Your task to perform on an android device: open the mobile data screen to see how much data has been used Image 0: 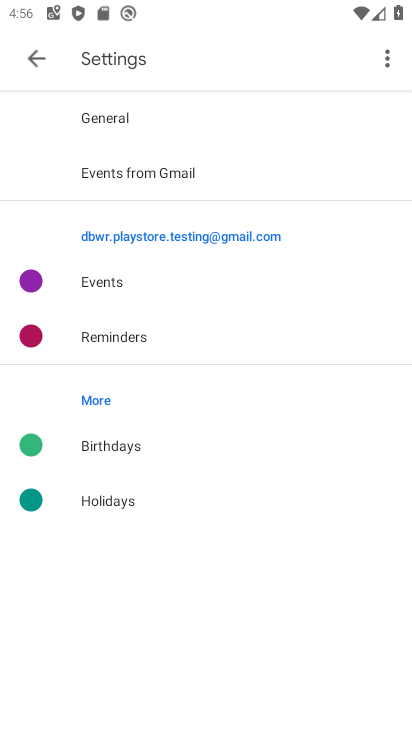
Step 0: press home button
Your task to perform on an android device: open the mobile data screen to see how much data has been used Image 1: 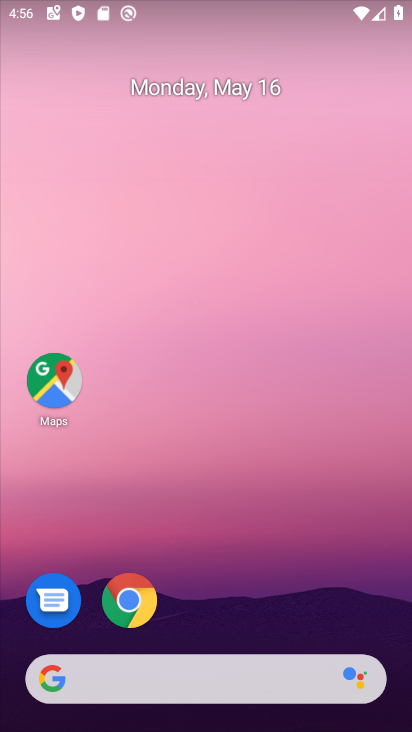
Step 1: drag from (209, 632) to (199, 38)
Your task to perform on an android device: open the mobile data screen to see how much data has been used Image 2: 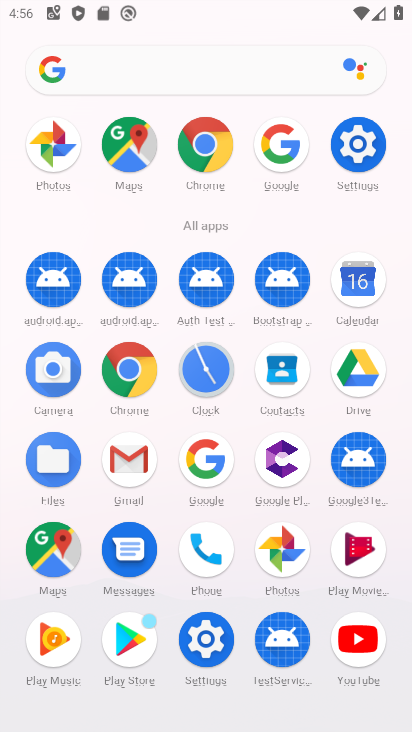
Step 2: click (359, 150)
Your task to perform on an android device: open the mobile data screen to see how much data has been used Image 3: 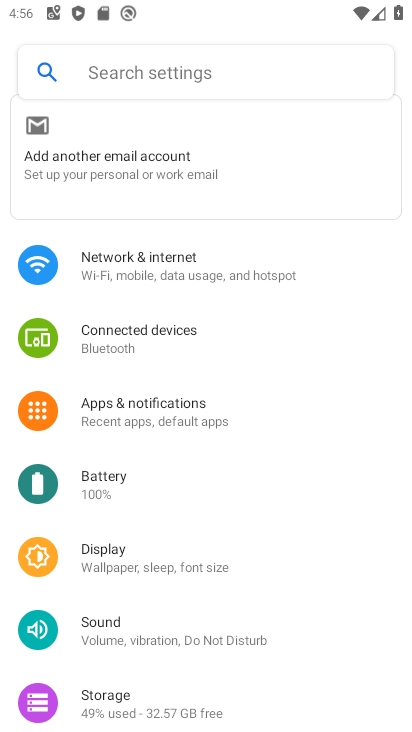
Step 3: click (119, 260)
Your task to perform on an android device: open the mobile data screen to see how much data has been used Image 4: 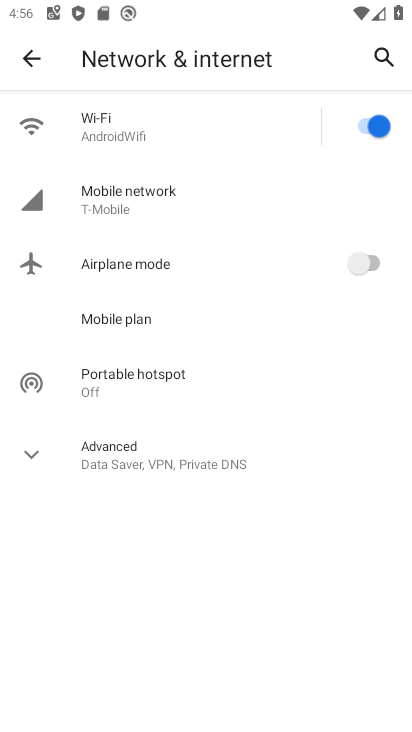
Step 4: click (121, 210)
Your task to perform on an android device: open the mobile data screen to see how much data has been used Image 5: 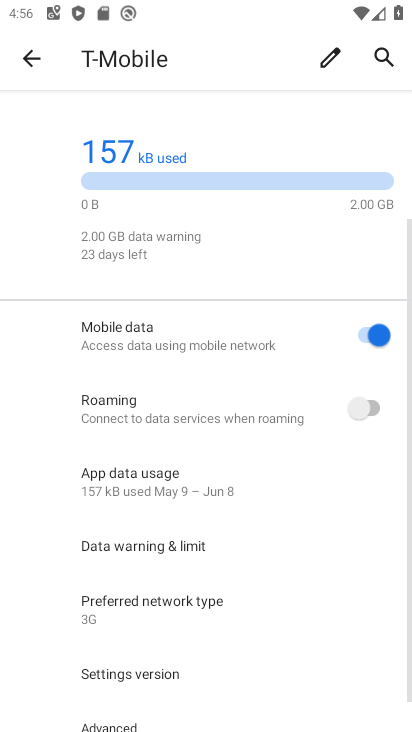
Step 5: task complete